Your task to perform on an android device: add a label to a message in the gmail app Image 0: 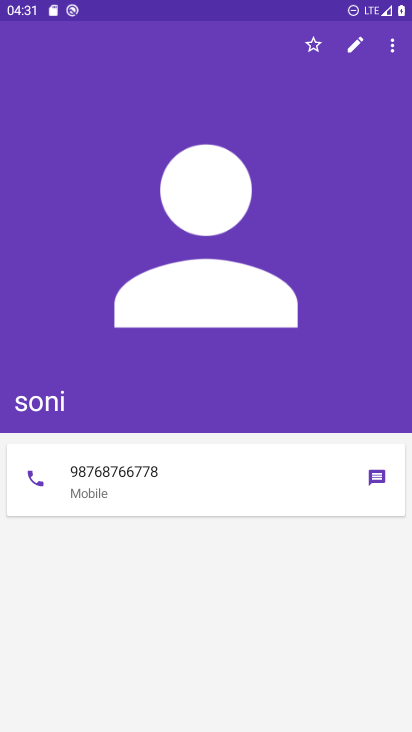
Step 0: press home button
Your task to perform on an android device: add a label to a message in the gmail app Image 1: 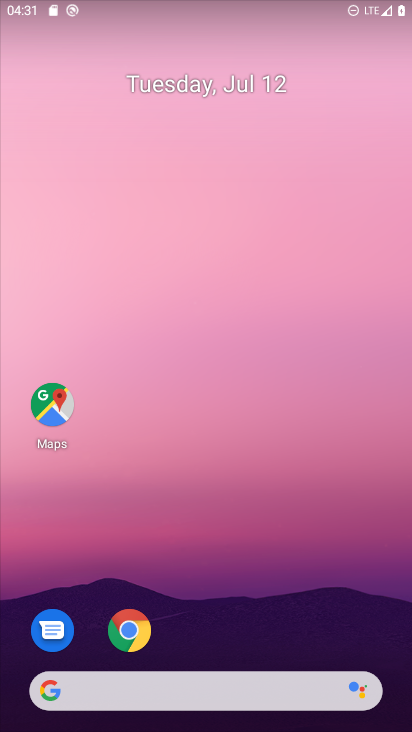
Step 1: drag from (177, 701) to (291, 73)
Your task to perform on an android device: add a label to a message in the gmail app Image 2: 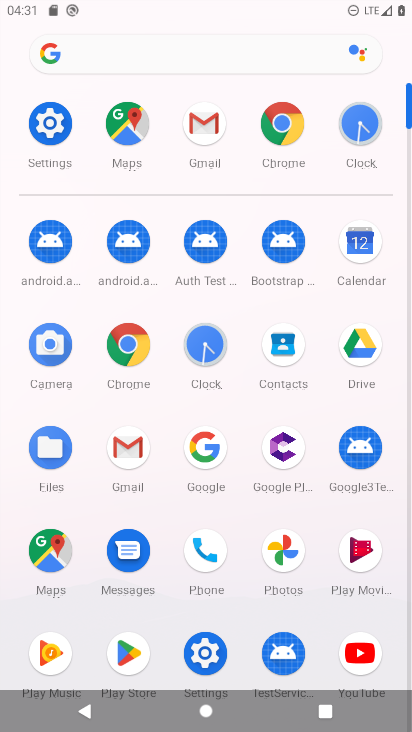
Step 2: click (120, 448)
Your task to perform on an android device: add a label to a message in the gmail app Image 3: 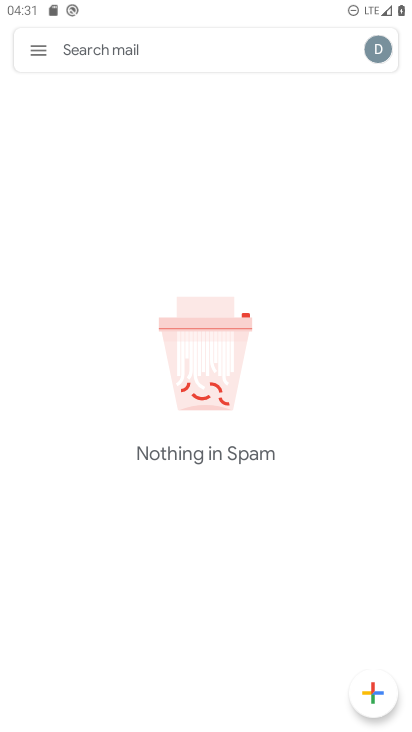
Step 3: click (44, 47)
Your task to perform on an android device: add a label to a message in the gmail app Image 4: 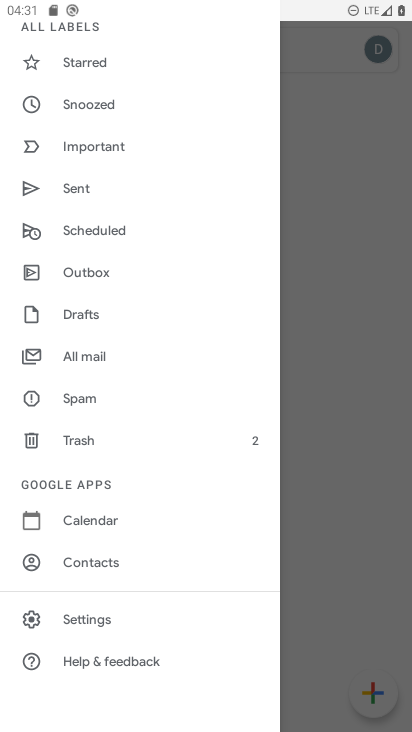
Step 4: click (305, 384)
Your task to perform on an android device: add a label to a message in the gmail app Image 5: 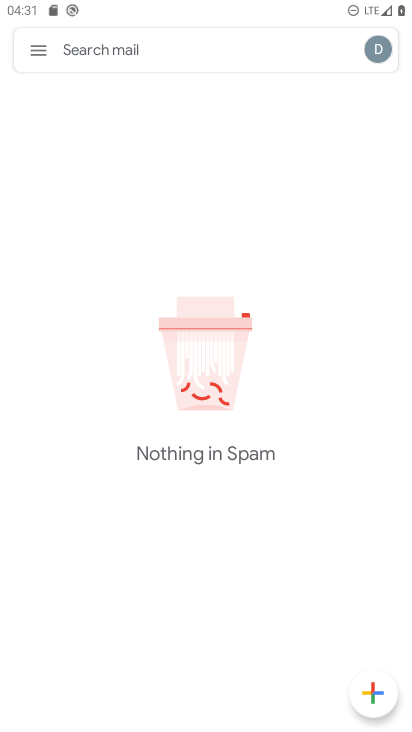
Step 5: drag from (206, 203) to (190, 610)
Your task to perform on an android device: add a label to a message in the gmail app Image 6: 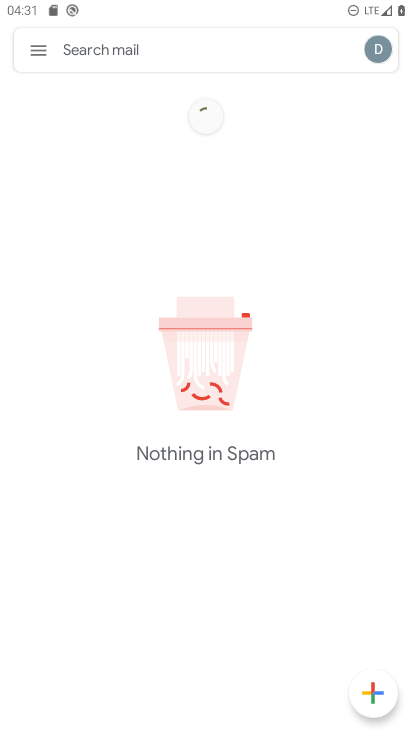
Step 6: click (41, 53)
Your task to perform on an android device: add a label to a message in the gmail app Image 7: 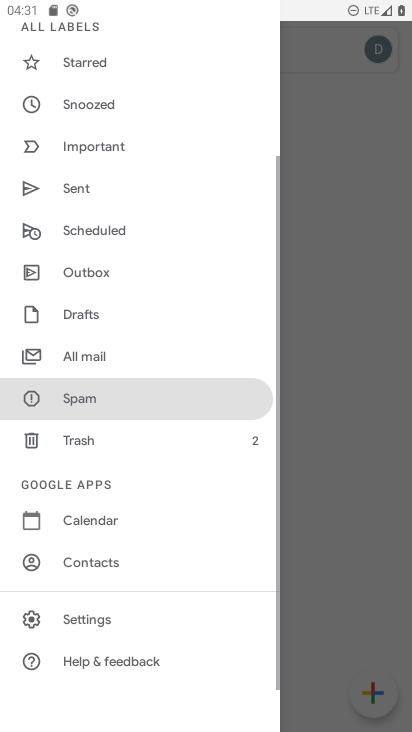
Step 7: drag from (137, 146) to (74, 637)
Your task to perform on an android device: add a label to a message in the gmail app Image 8: 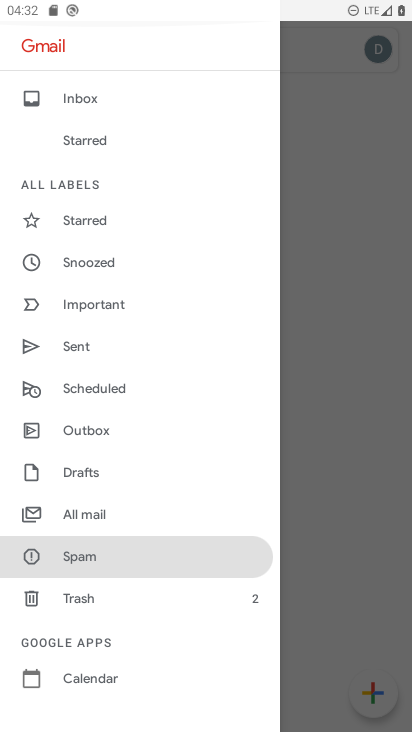
Step 8: click (110, 101)
Your task to perform on an android device: add a label to a message in the gmail app Image 9: 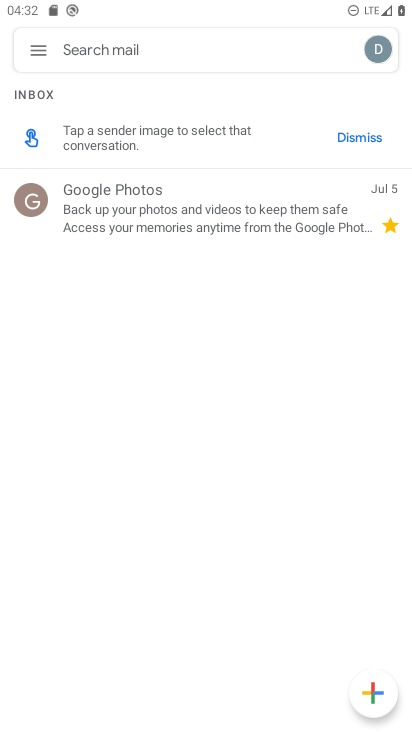
Step 9: click (308, 211)
Your task to perform on an android device: add a label to a message in the gmail app Image 10: 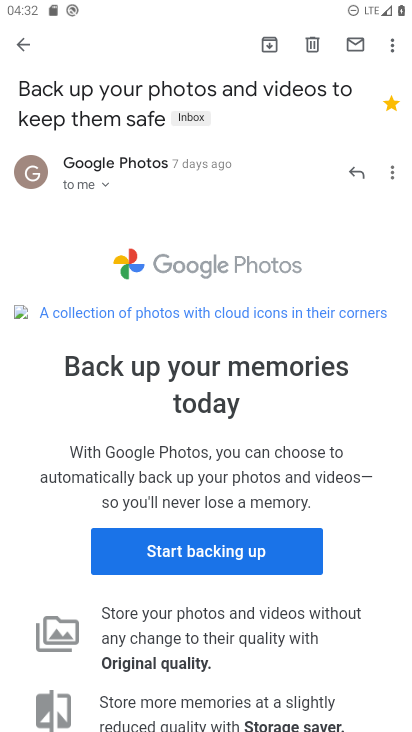
Step 10: click (391, 45)
Your task to perform on an android device: add a label to a message in the gmail app Image 11: 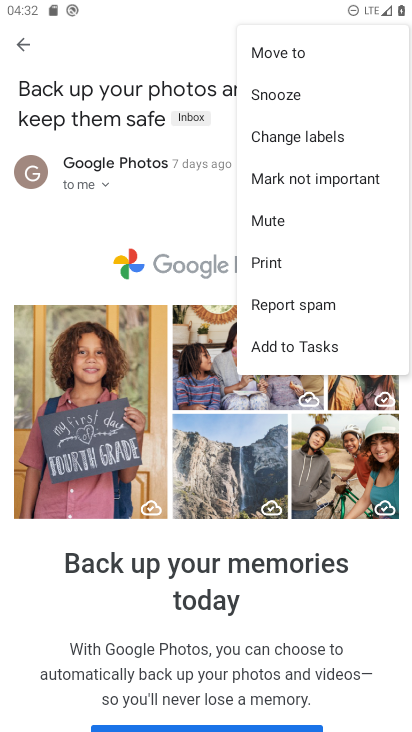
Step 11: click (306, 146)
Your task to perform on an android device: add a label to a message in the gmail app Image 12: 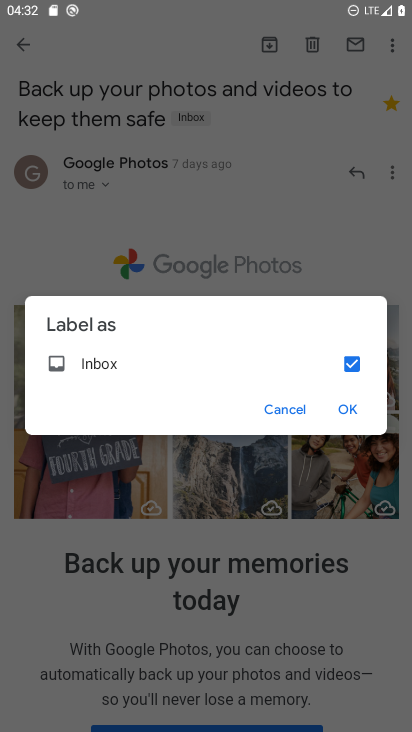
Step 12: click (341, 399)
Your task to perform on an android device: add a label to a message in the gmail app Image 13: 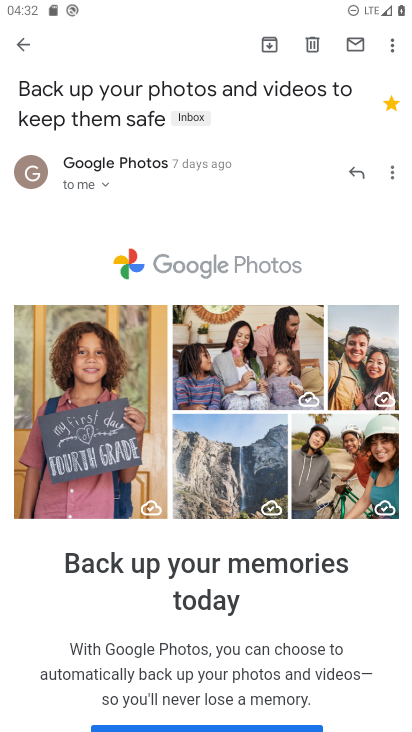
Step 13: task complete